Your task to perform on an android device: Open Android settings Image 0: 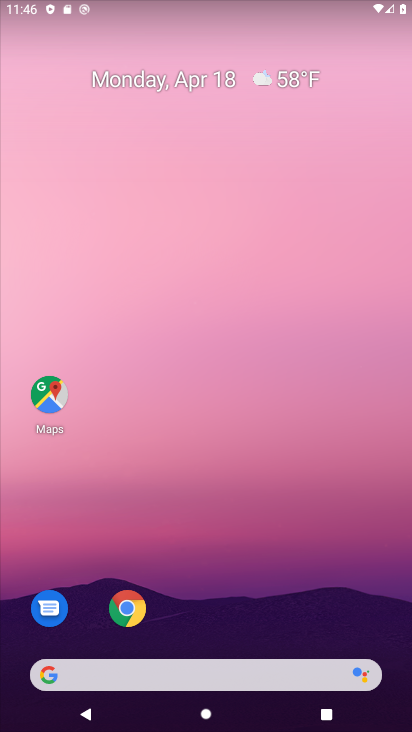
Step 0: drag from (264, 562) to (212, 64)
Your task to perform on an android device: Open Android settings Image 1: 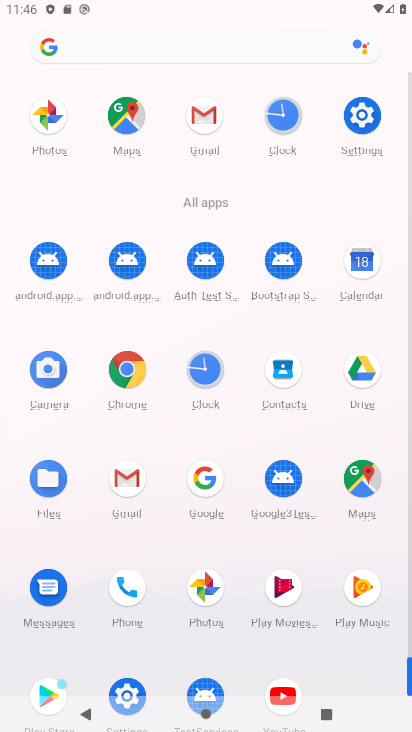
Step 1: click (362, 119)
Your task to perform on an android device: Open Android settings Image 2: 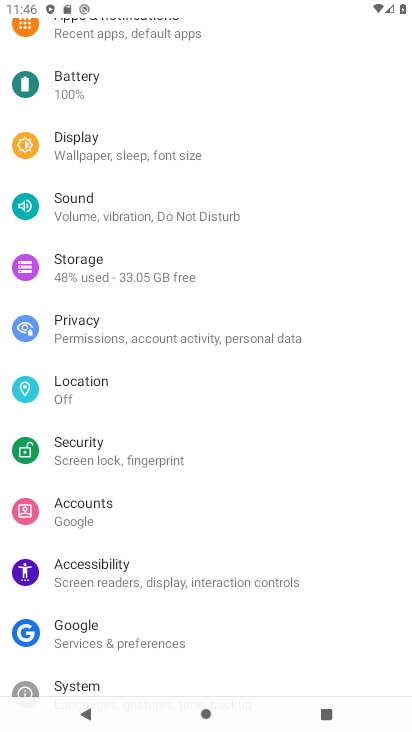
Step 2: task complete